Your task to perform on an android device: Turn on the flashlight Image 0: 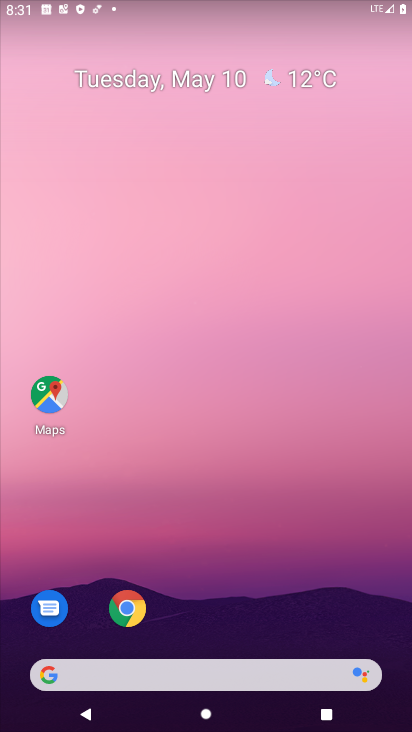
Step 0: click (245, 276)
Your task to perform on an android device: Turn on the flashlight Image 1: 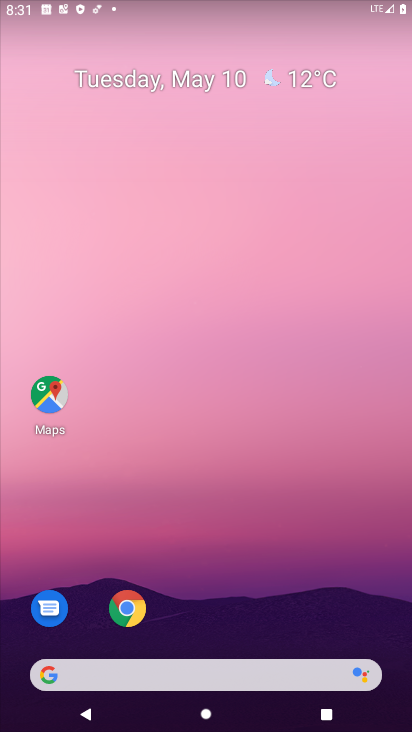
Step 1: task complete